Your task to perform on an android device: Open notification settings Image 0: 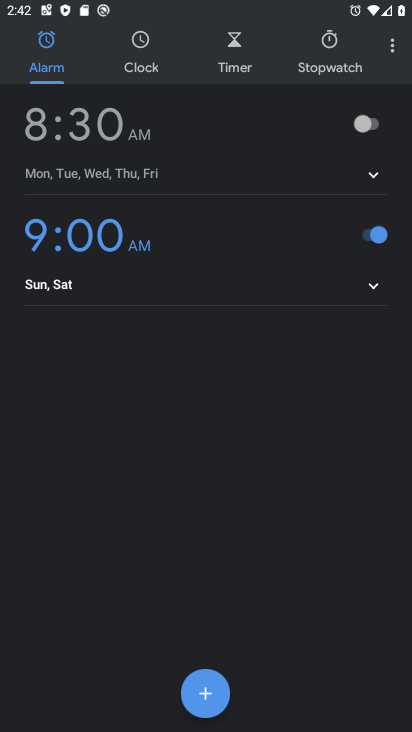
Step 0: press home button
Your task to perform on an android device: Open notification settings Image 1: 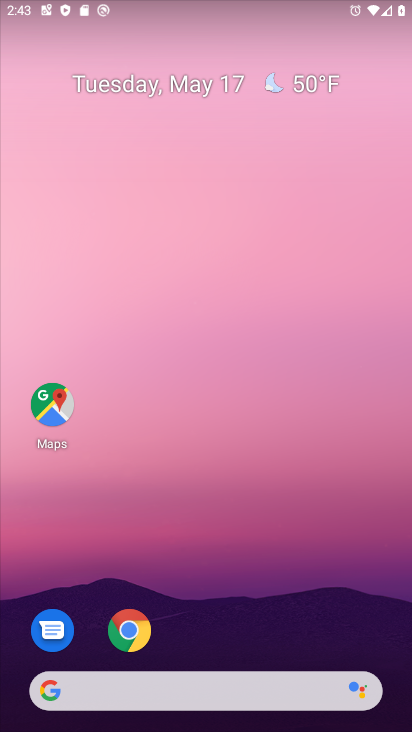
Step 1: drag from (170, 672) to (182, 294)
Your task to perform on an android device: Open notification settings Image 2: 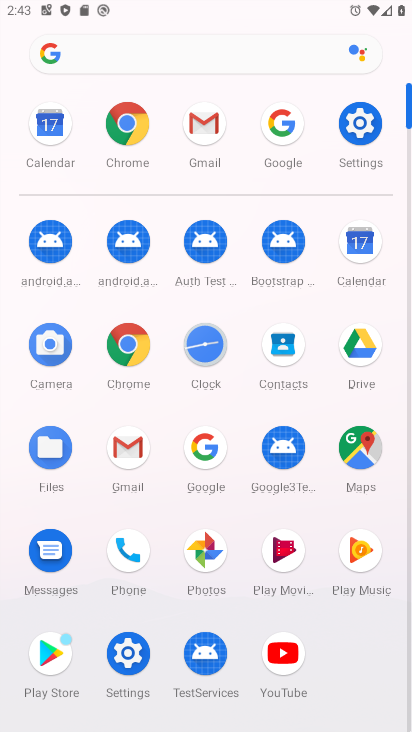
Step 2: click (363, 135)
Your task to perform on an android device: Open notification settings Image 3: 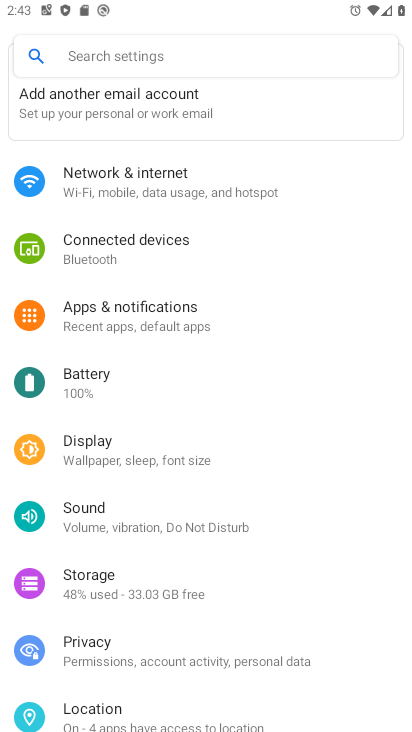
Step 3: click (140, 322)
Your task to perform on an android device: Open notification settings Image 4: 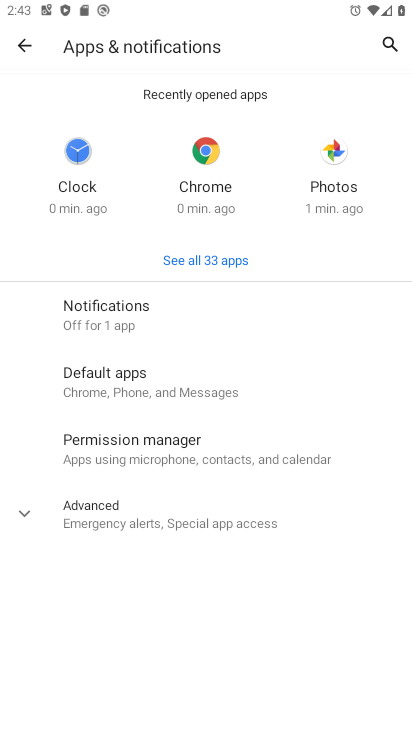
Step 4: click (155, 522)
Your task to perform on an android device: Open notification settings Image 5: 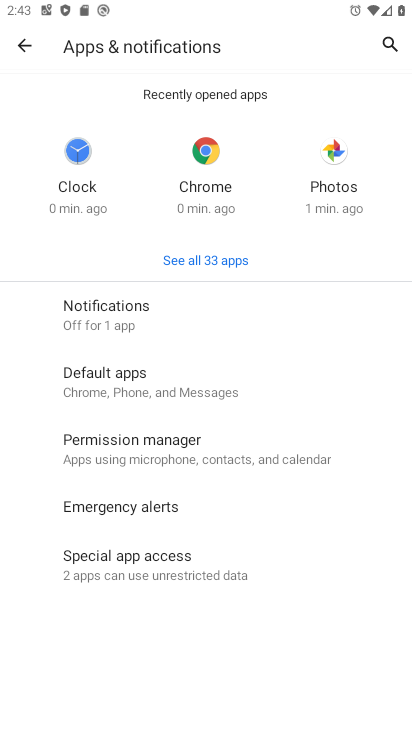
Step 5: task complete